Your task to perform on an android device: toggle translation in the chrome app Image 0: 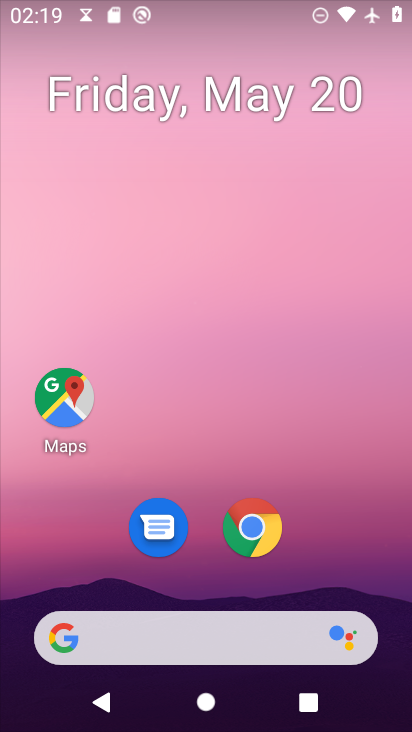
Step 0: press home button
Your task to perform on an android device: toggle translation in the chrome app Image 1: 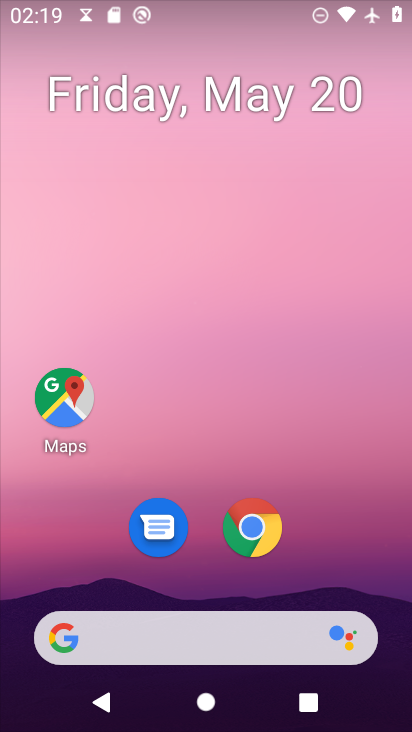
Step 1: click (242, 540)
Your task to perform on an android device: toggle translation in the chrome app Image 2: 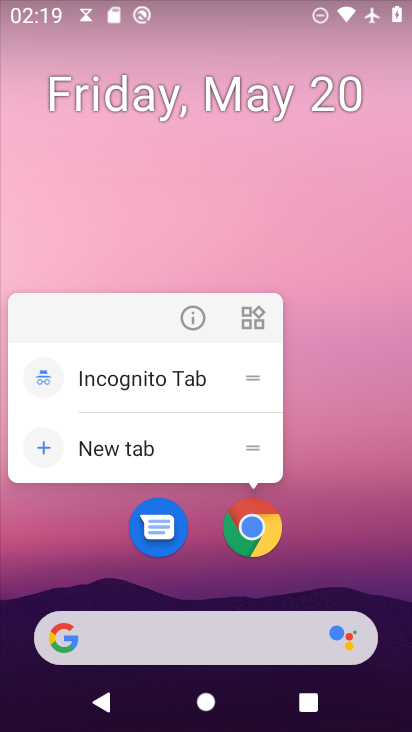
Step 2: click (256, 534)
Your task to perform on an android device: toggle translation in the chrome app Image 3: 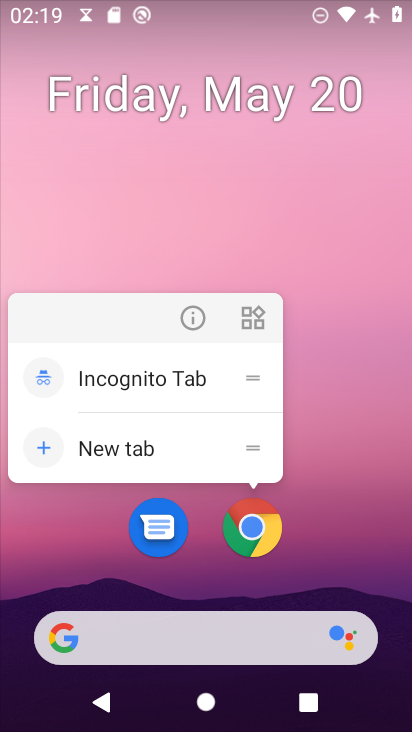
Step 3: click (249, 542)
Your task to perform on an android device: toggle translation in the chrome app Image 4: 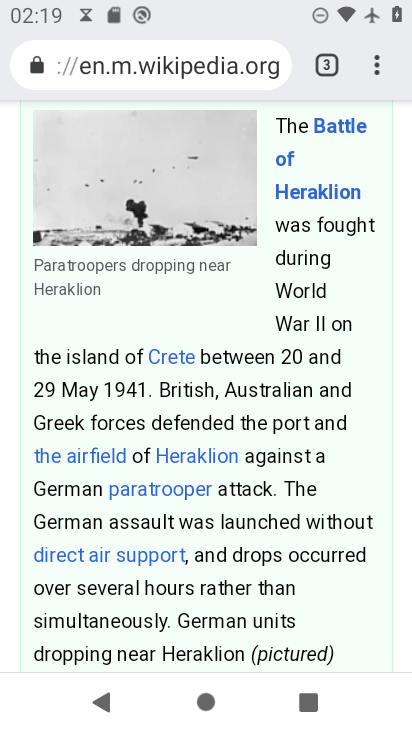
Step 4: drag from (370, 64) to (241, 575)
Your task to perform on an android device: toggle translation in the chrome app Image 5: 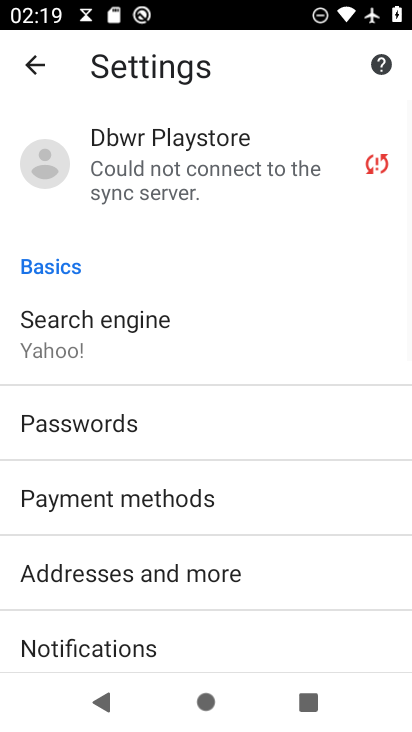
Step 5: drag from (176, 661) to (301, 214)
Your task to perform on an android device: toggle translation in the chrome app Image 6: 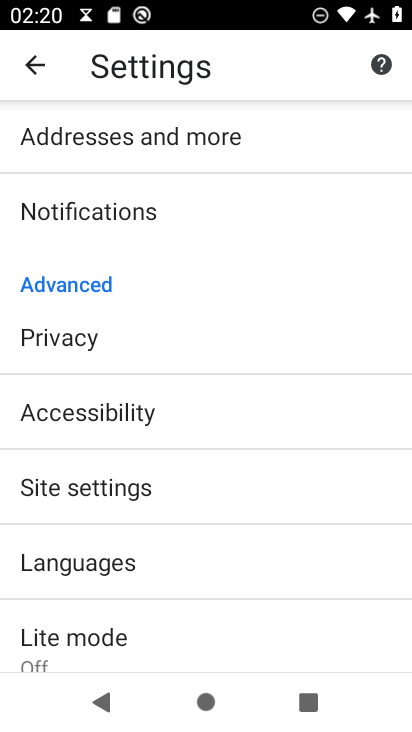
Step 6: click (111, 562)
Your task to perform on an android device: toggle translation in the chrome app Image 7: 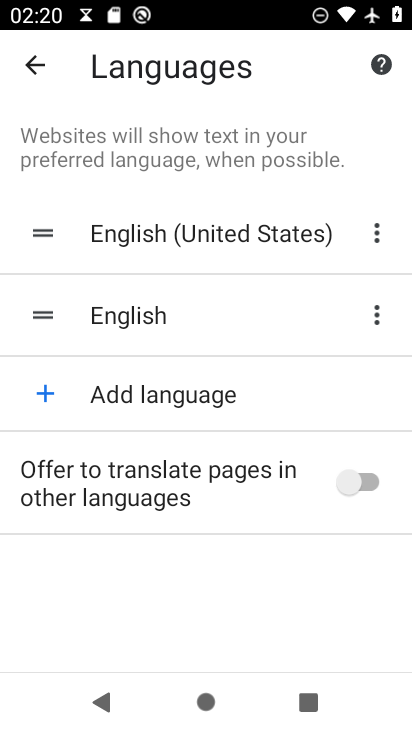
Step 7: click (373, 482)
Your task to perform on an android device: toggle translation in the chrome app Image 8: 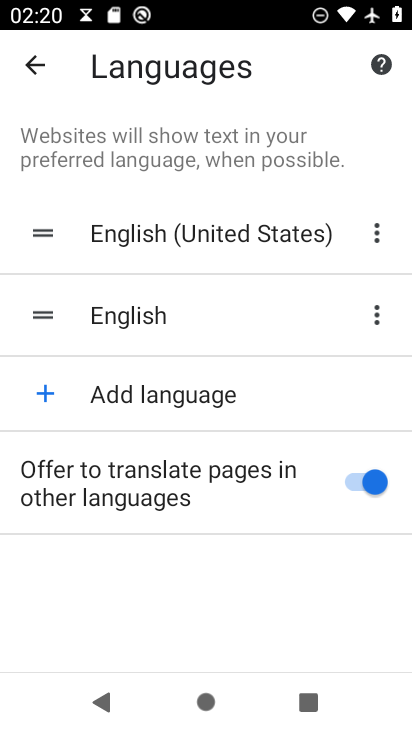
Step 8: task complete